Your task to perform on an android device: read, delete, or share a saved page in the chrome app Image 0: 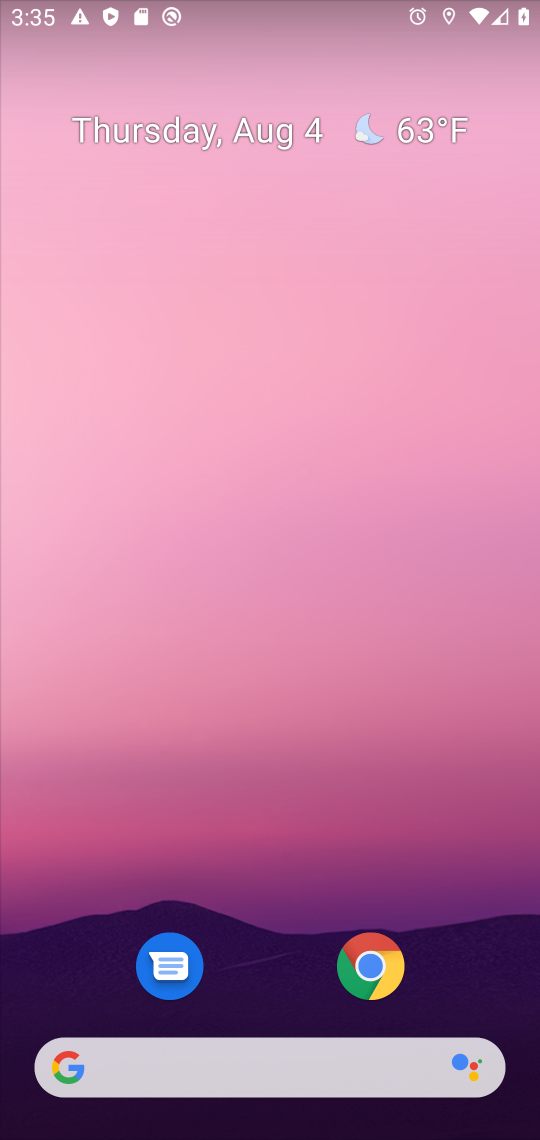
Step 0: press home button
Your task to perform on an android device: read, delete, or share a saved page in the chrome app Image 1: 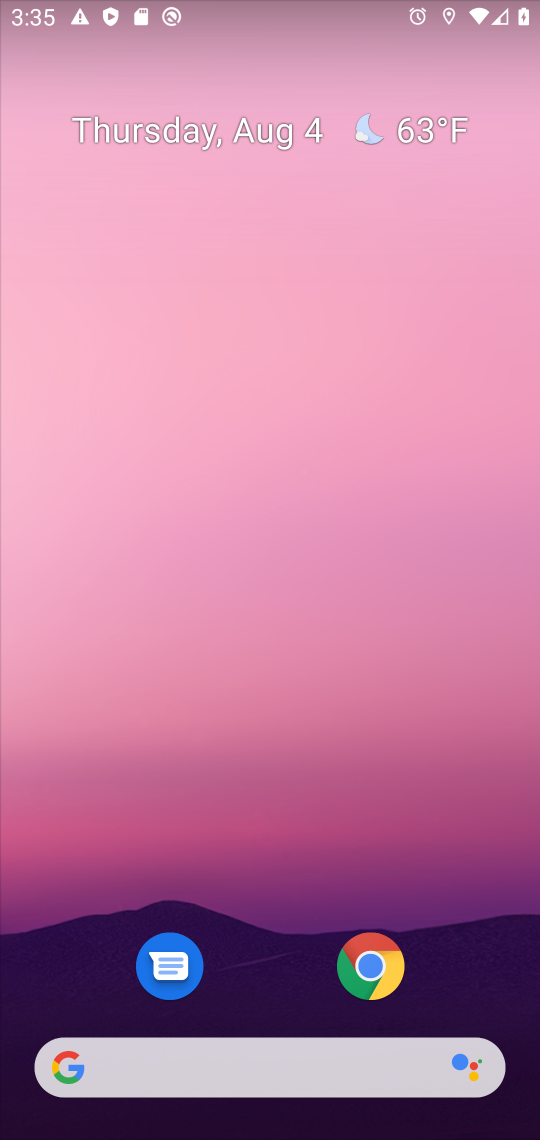
Step 1: click (359, 966)
Your task to perform on an android device: read, delete, or share a saved page in the chrome app Image 2: 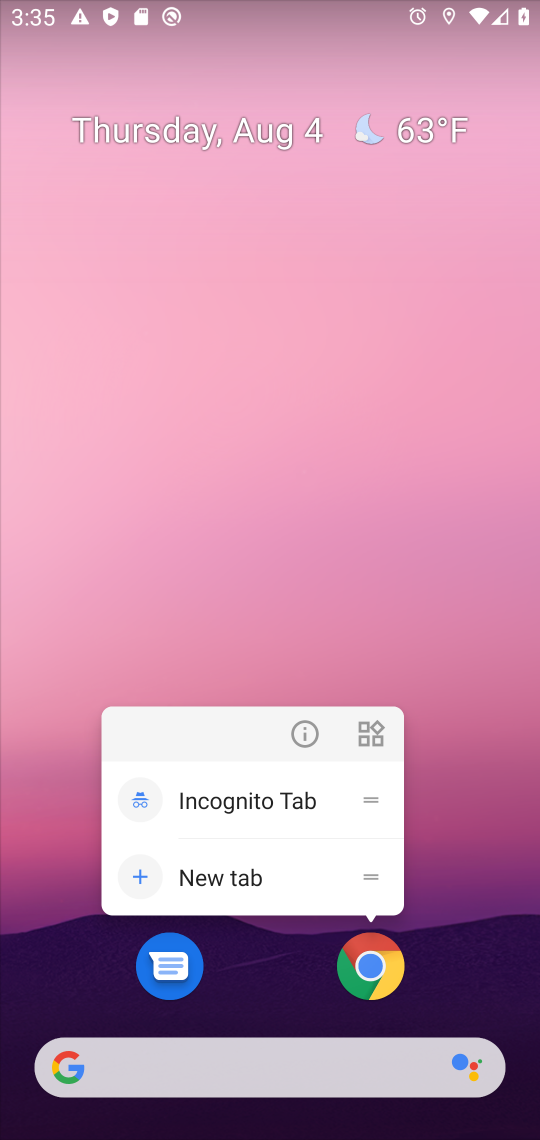
Step 2: click (359, 966)
Your task to perform on an android device: read, delete, or share a saved page in the chrome app Image 3: 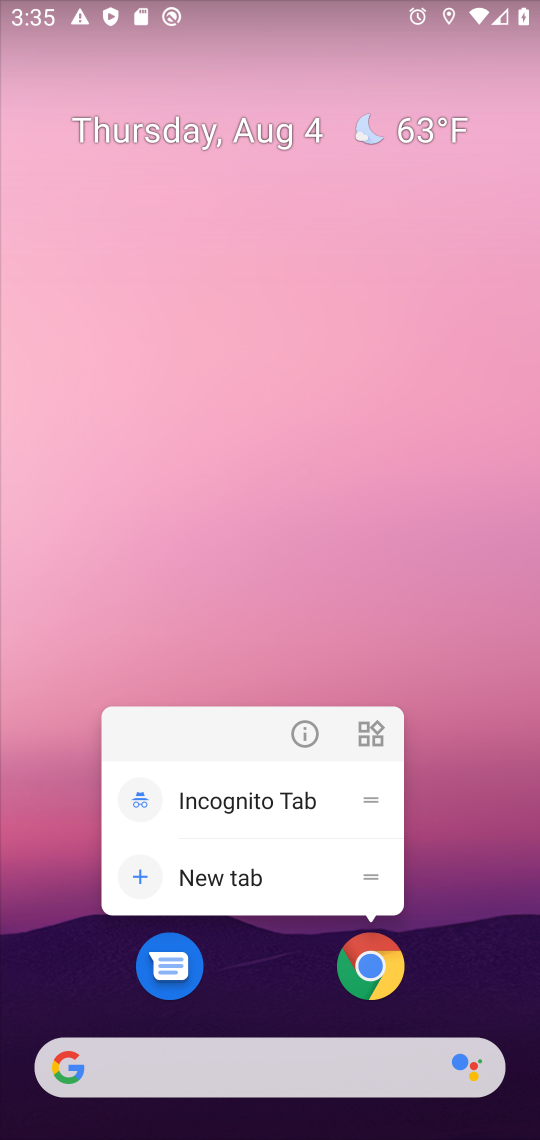
Step 3: click (372, 962)
Your task to perform on an android device: read, delete, or share a saved page in the chrome app Image 4: 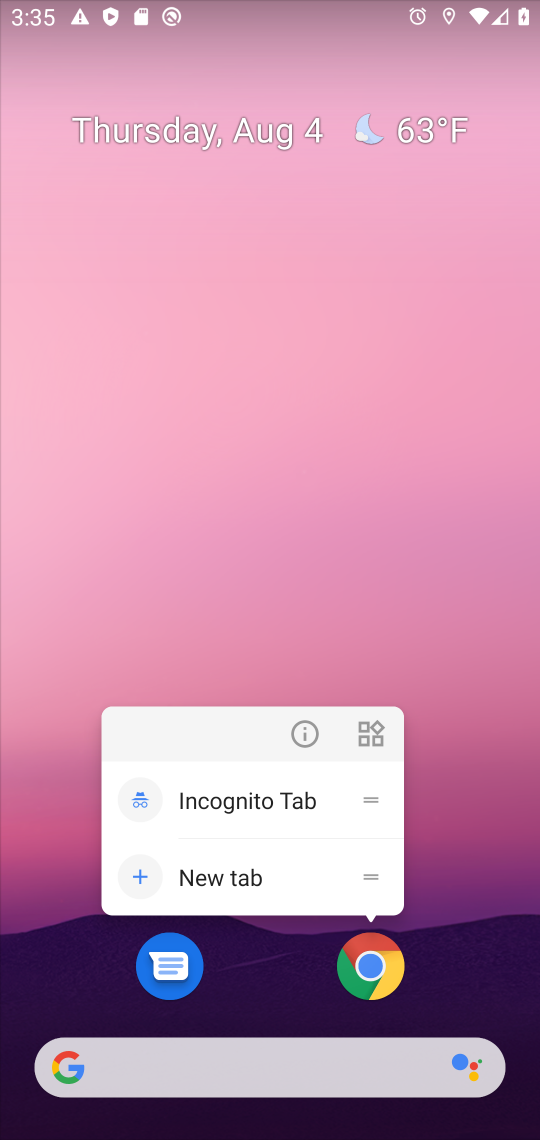
Step 4: click (372, 962)
Your task to perform on an android device: read, delete, or share a saved page in the chrome app Image 5: 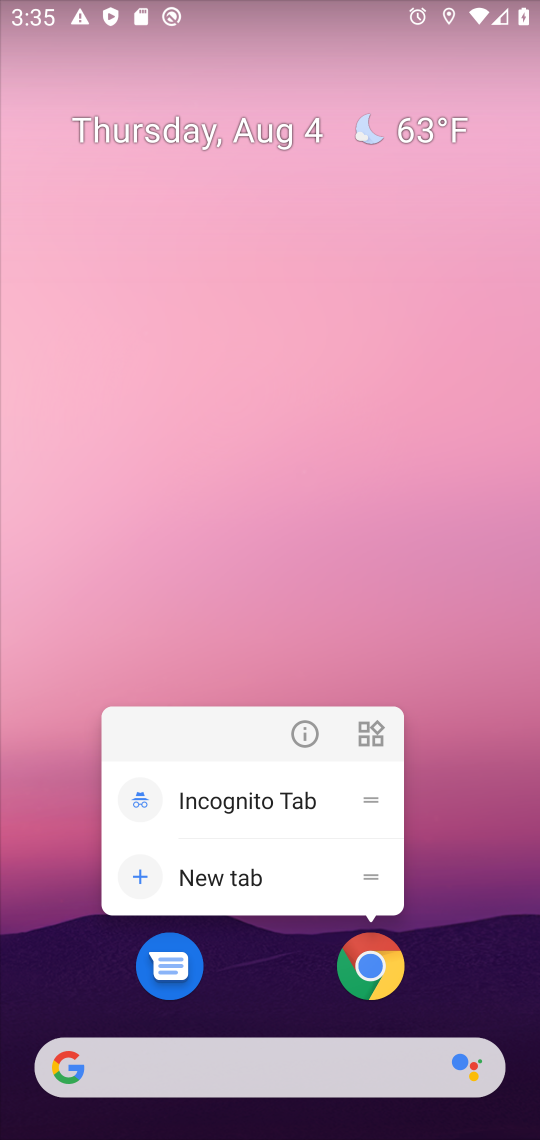
Step 5: click (348, 979)
Your task to perform on an android device: read, delete, or share a saved page in the chrome app Image 6: 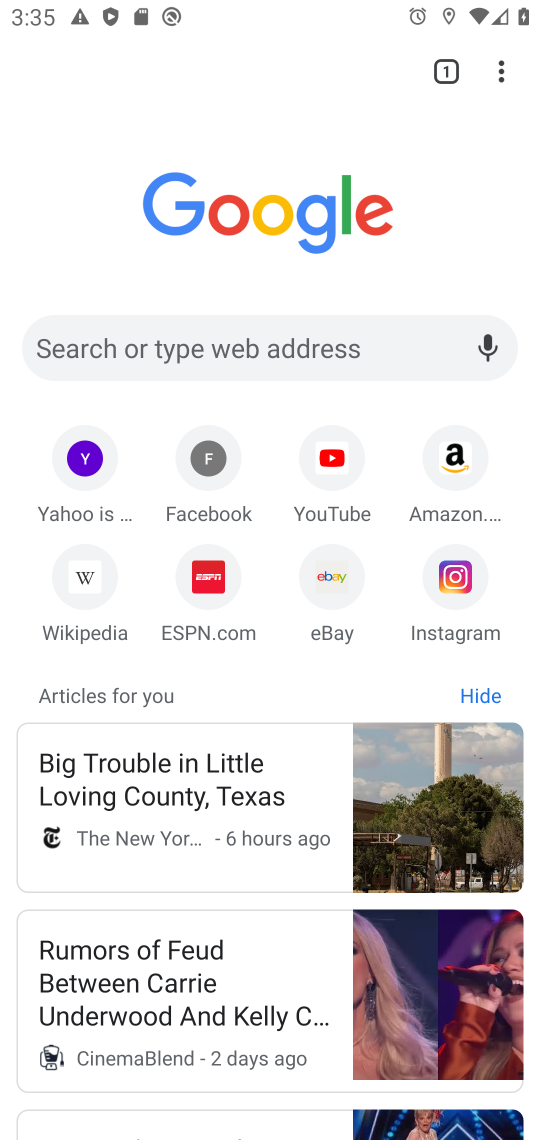
Step 6: drag from (500, 76) to (254, 470)
Your task to perform on an android device: read, delete, or share a saved page in the chrome app Image 7: 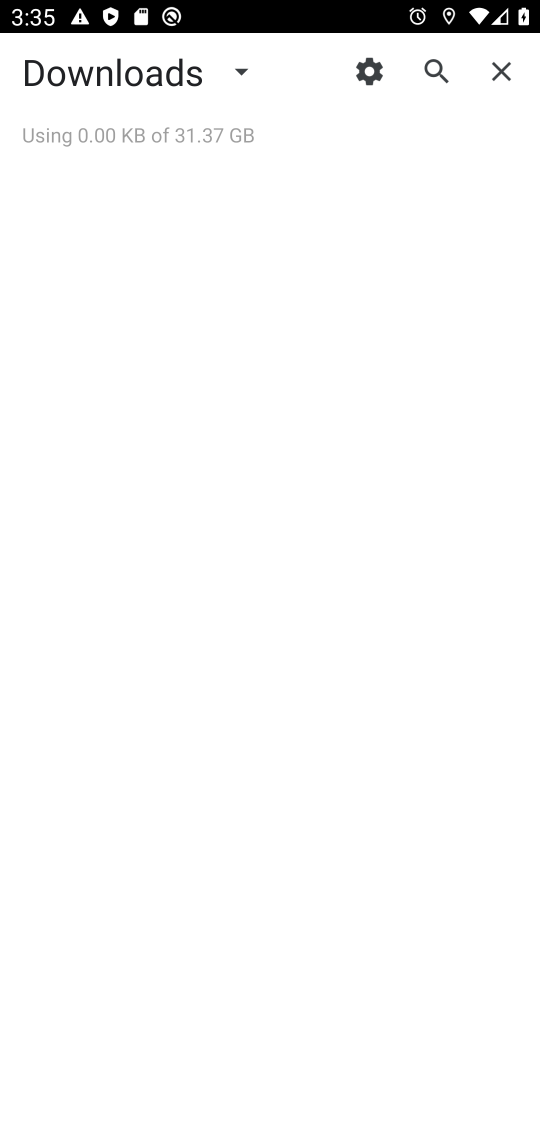
Step 7: click (237, 68)
Your task to perform on an android device: read, delete, or share a saved page in the chrome app Image 8: 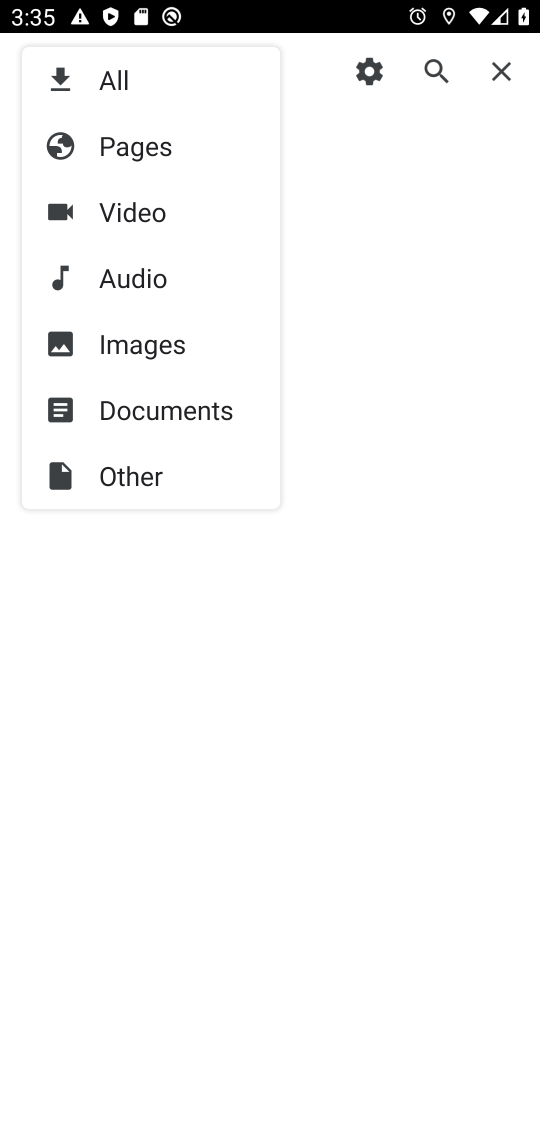
Step 8: click (124, 157)
Your task to perform on an android device: read, delete, or share a saved page in the chrome app Image 9: 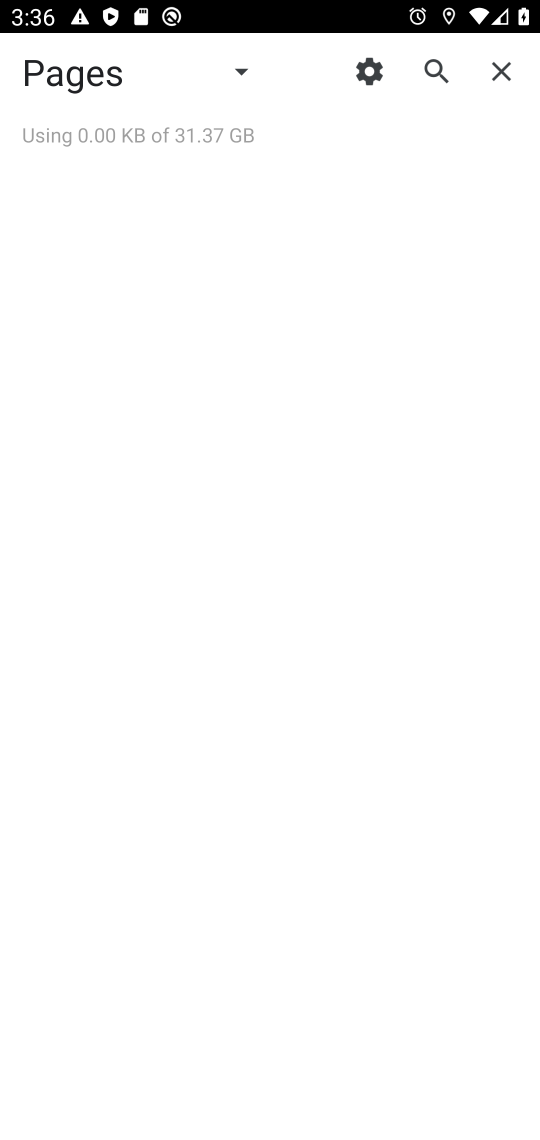
Step 9: task complete